Your task to perform on an android device: add a contact Image 0: 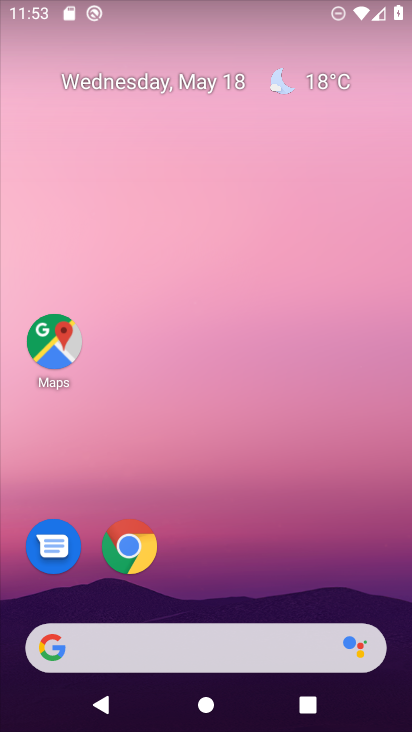
Step 0: drag from (218, 731) to (175, 188)
Your task to perform on an android device: add a contact Image 1: 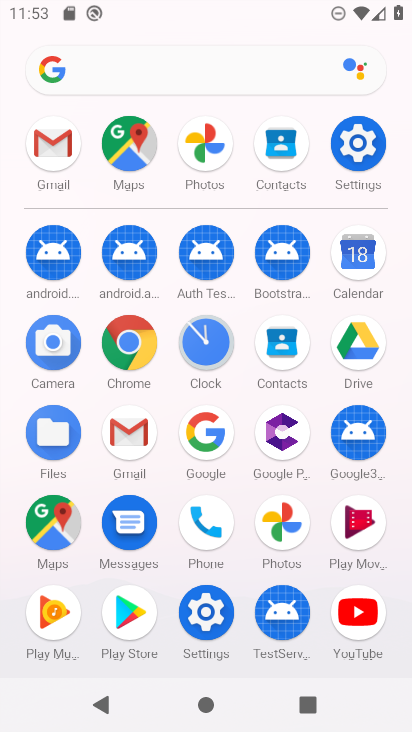
Step 1: click (288, 341)
Your task to perform on an android device: add a contact Image 2: 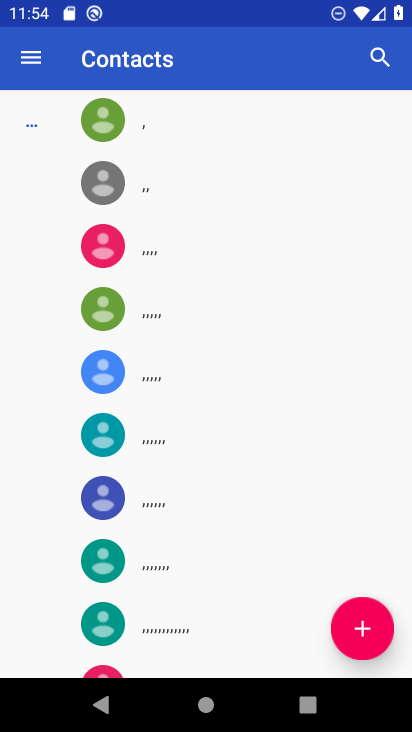
Step 2: click (362, 620)
Your task to perform on an android device: add a contact Image 3: 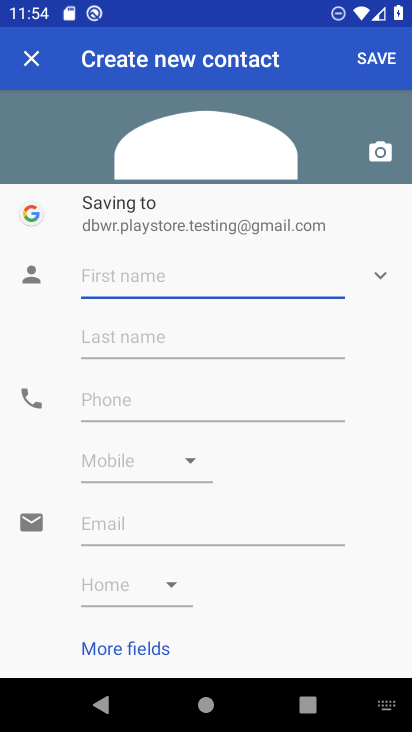
Step 3: type "beast"
Your task to perform on an android device: add a contact Image 4: 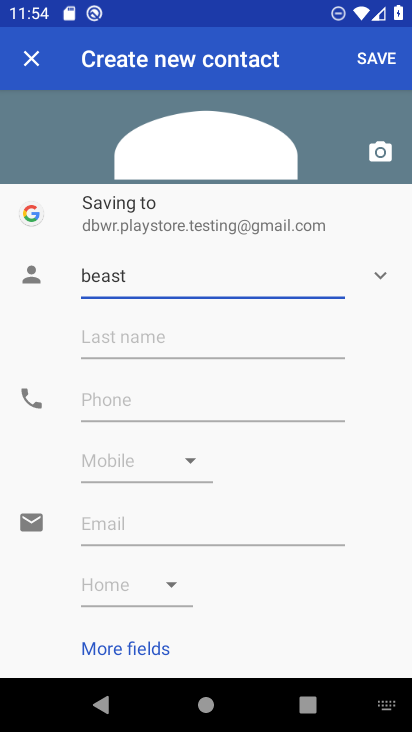
Step 4: click (179, 409)
Your task to perform on an android device: add a contact Image 5: 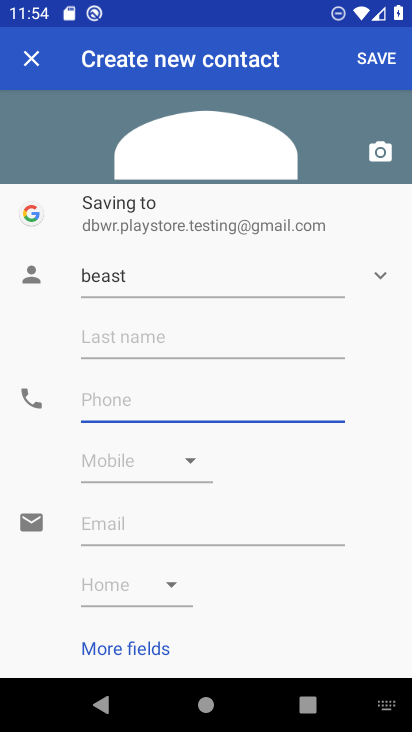
Step 5: type "666"
Your task to perform on an android device: add a contact Image 6: 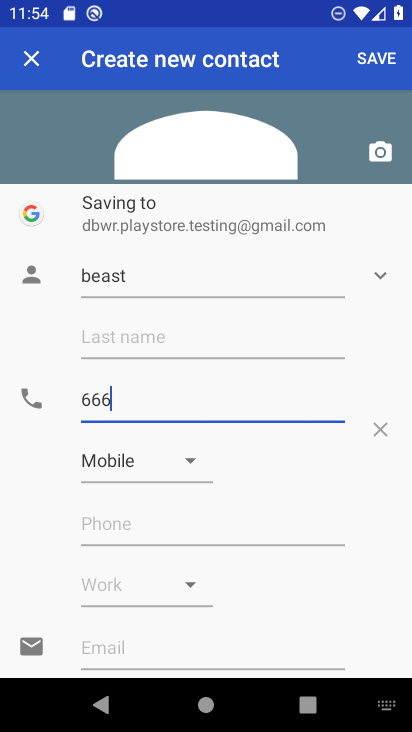
Step 6: click (380, 50)
Your task to perform on an android device: add a contact Image 7: 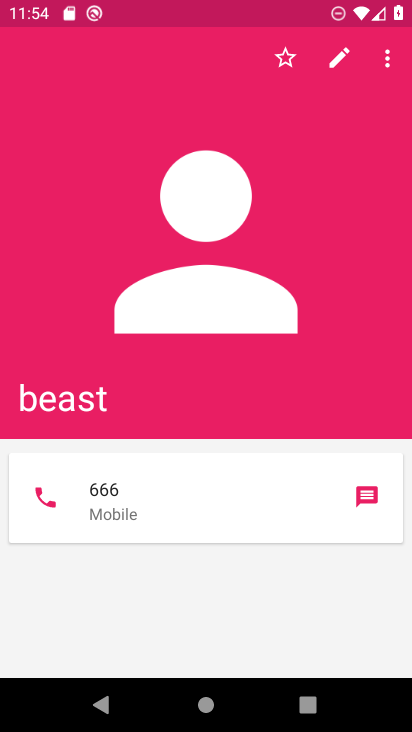
Step 7: task complete